Your task to perform on an android device: open app "ZOOM Cloud Meetings" Image 0: 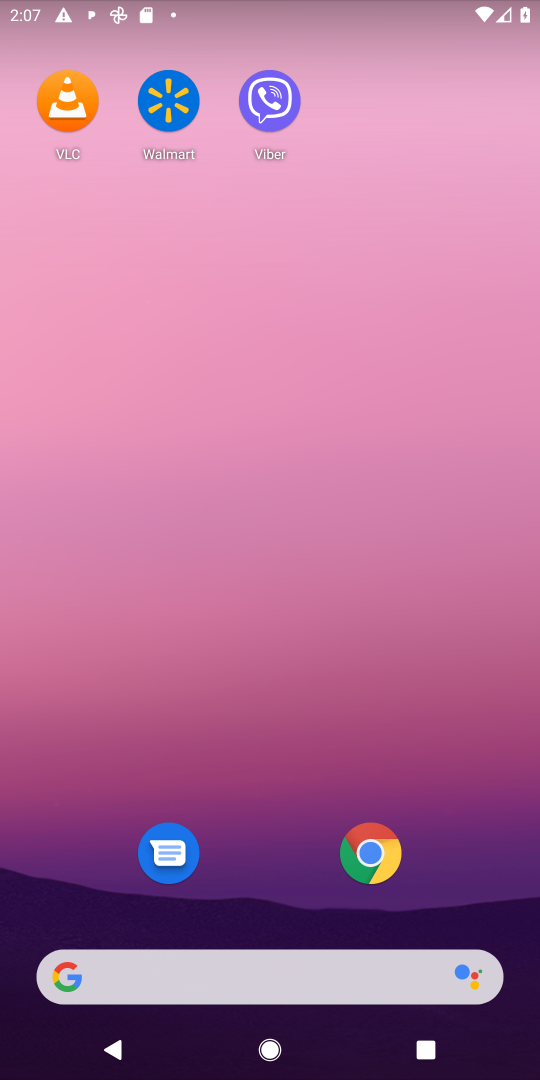
Step 0: drag from (294, 934) to (288, 145)
Your task to perform on an android device: open app "ZOOM Cloud Meetings" Image 1: 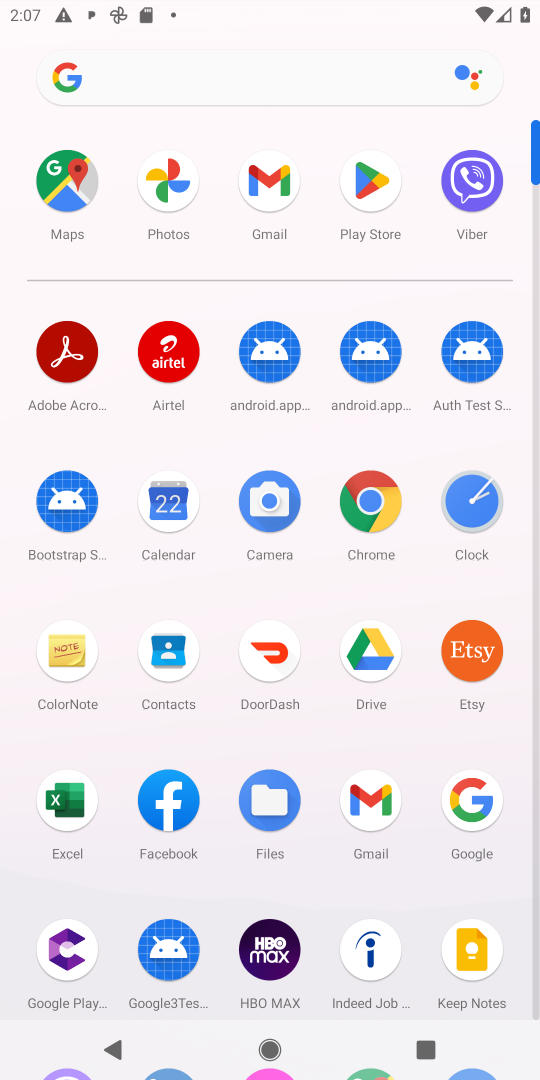
Step 1: click (373, 174)
Your task to perform on an android device: open app "ZOOM Cloud Meetings" Image 2: 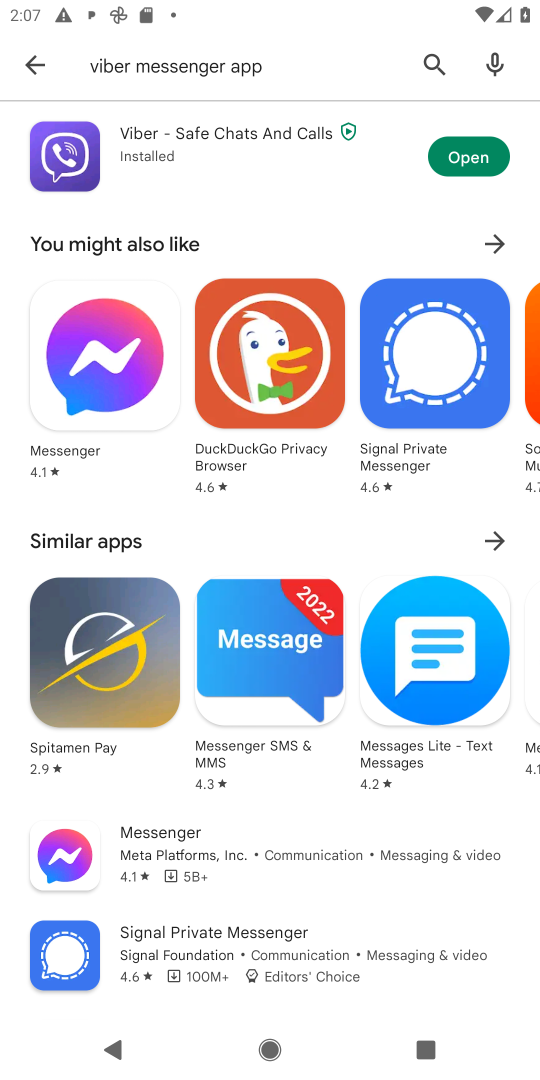
Step 2: click (43, 82)
Your task to perform on an android device: open app "ZOOM Cloud Meetings" Image 3: 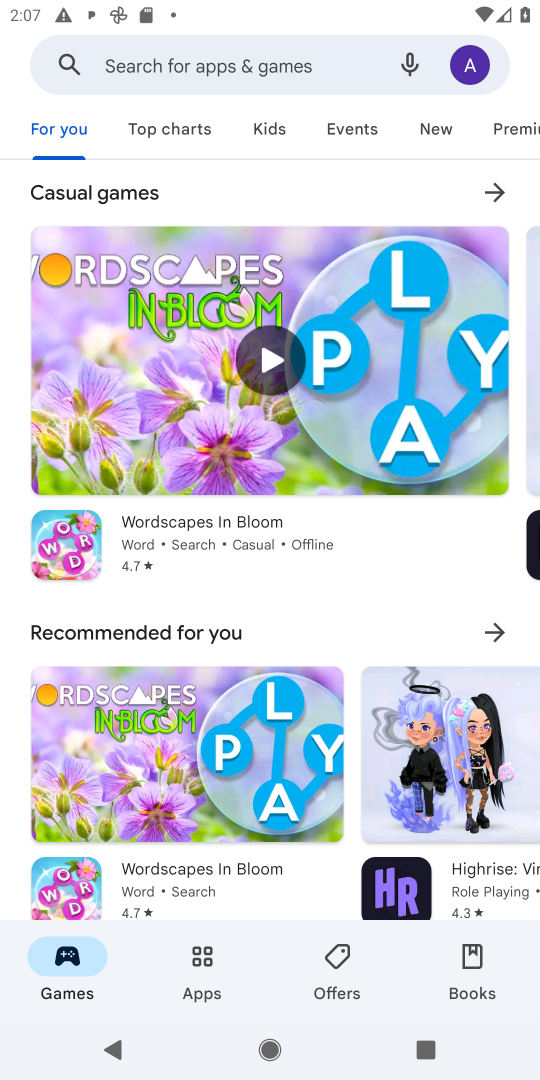
Step 3: click (247, 52)
Your task to perform on an android device: open app "ZOOM Cloud Meetings" Image 4: 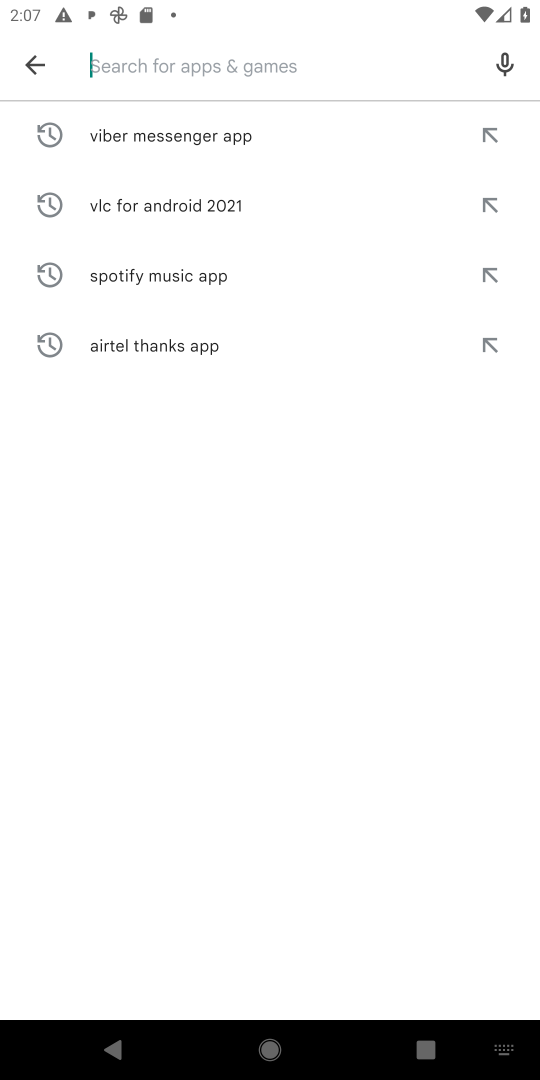
Step 4: type "ZOOM Cloud Meetings "
Your task to perform on an android device: open app "ZOOM Cloud Meetings" Image 5: 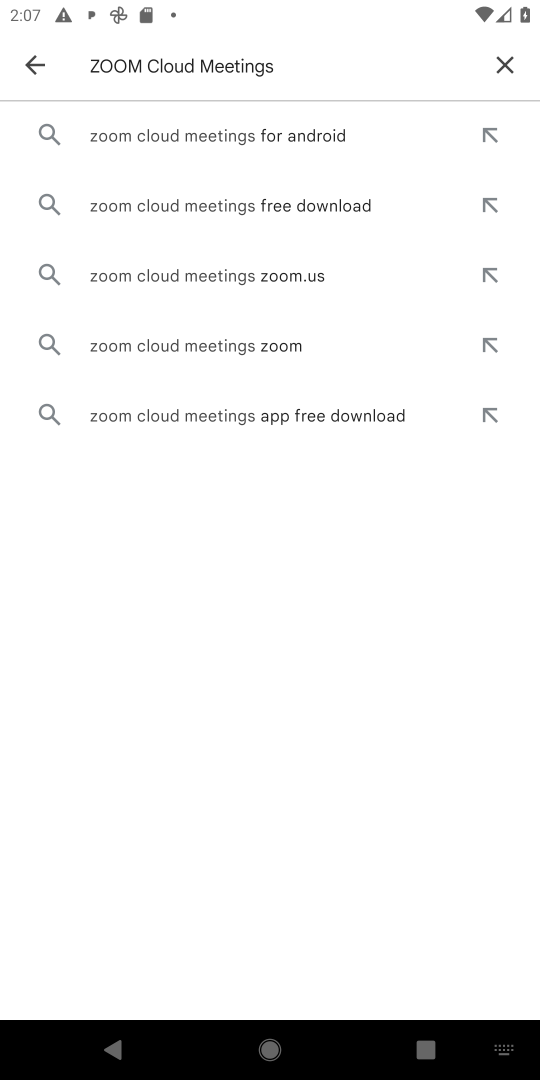
Step 5: click (229, 123)
Your task to perform on an android device: open app "ZOOM Cloud Meetings" Image 6: 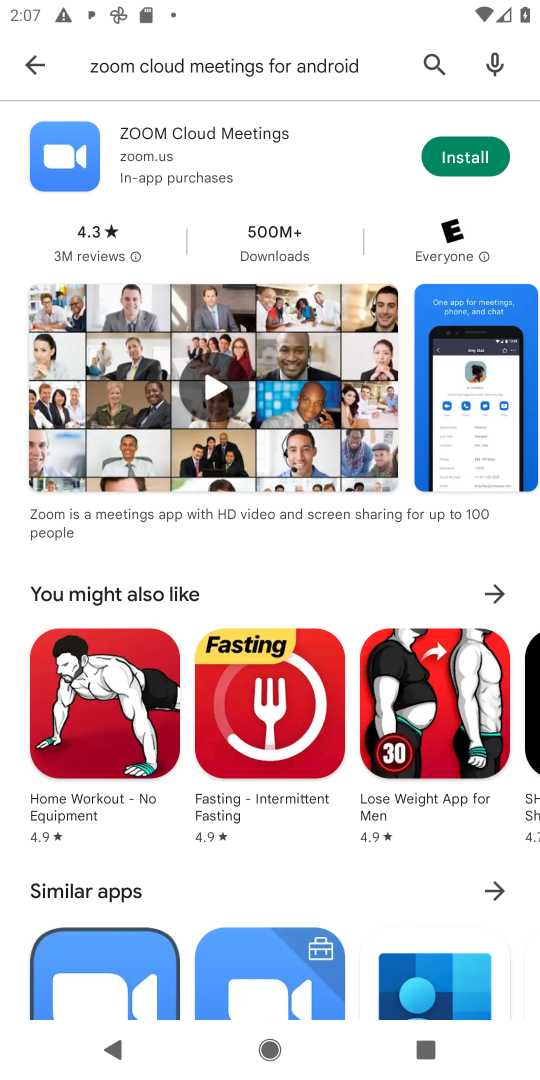
Step 6: click (447, 153)
Your task to perform on an android device: open app "ZOOM Cloud Meetings" Image 7: 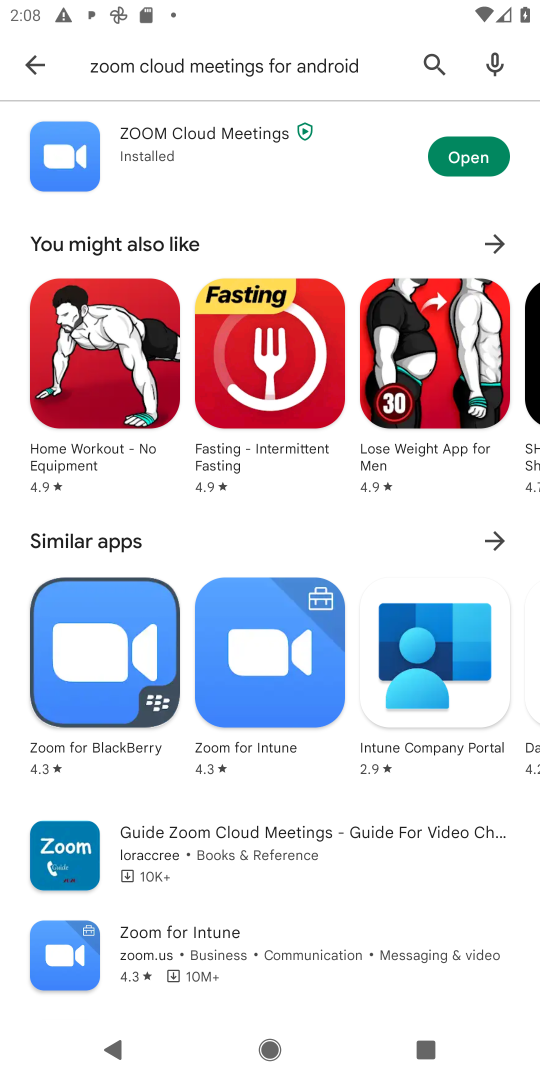
Step 7: click (479, 155)
Your task to perform on an android device: open app "ZOOM Cloud Meetings" Image 8: 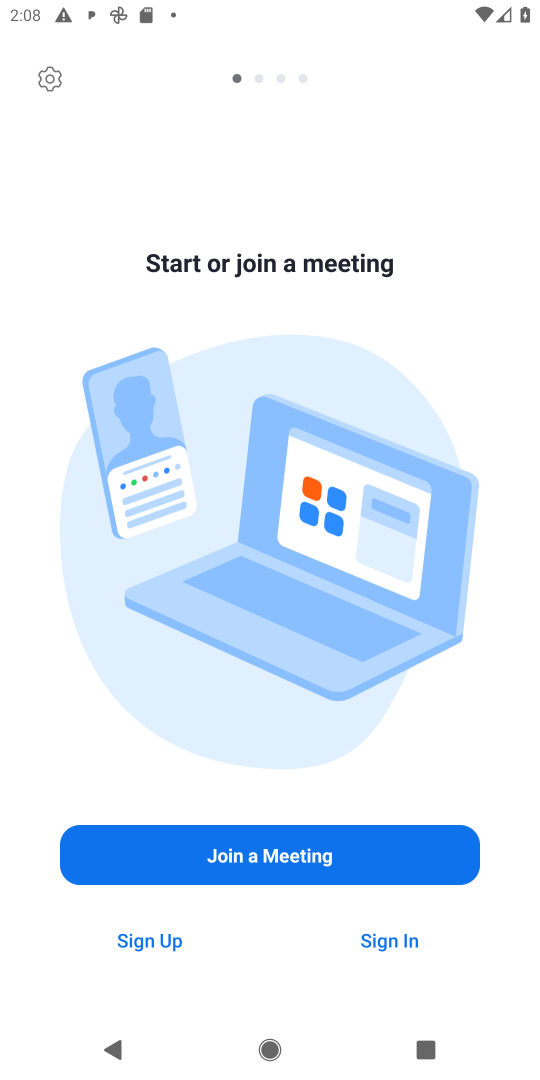
Step 8: task complete